Your task to perform on an android device: visit the assistant section in the google photos Image 0: 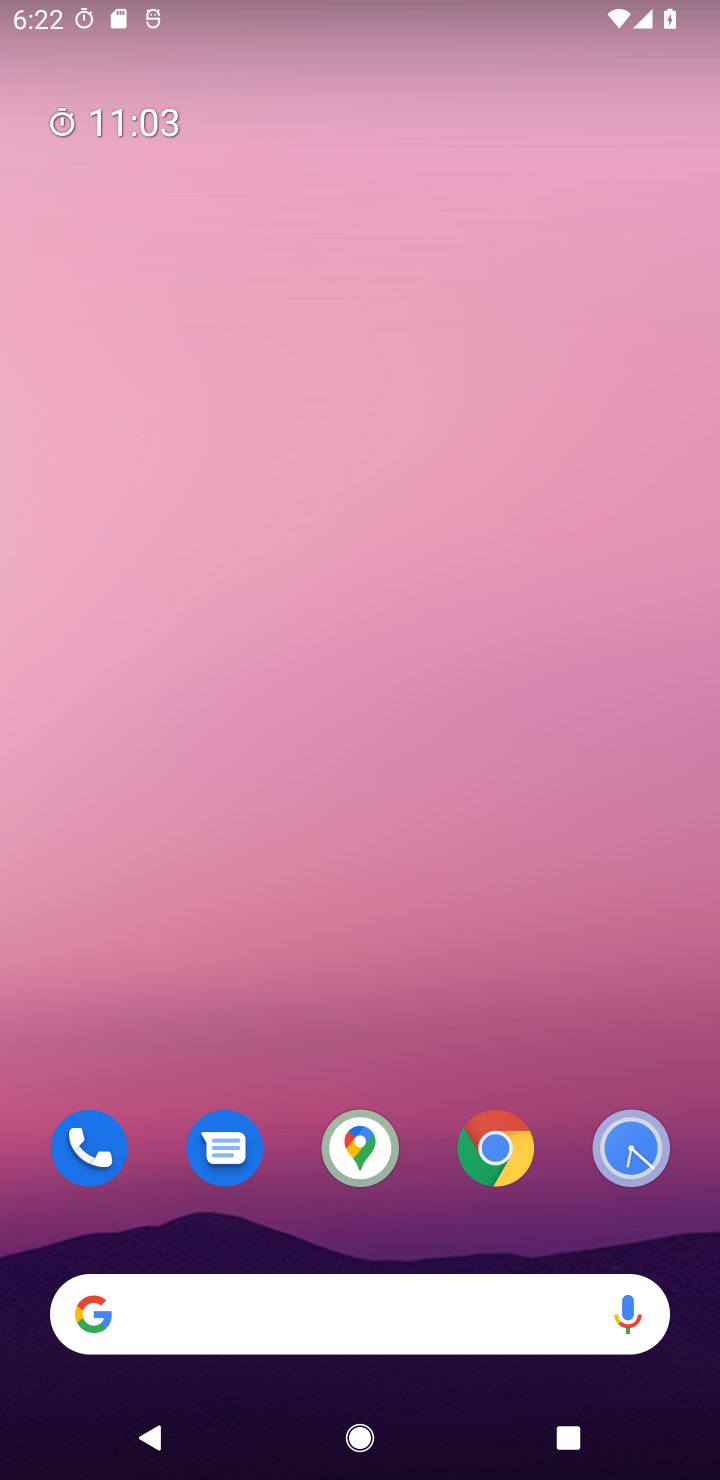
Step 0: drag from (294, 1179) to (312, 823)
Your task to perform on an android device: visit the assistant section in the google photos Image 1: 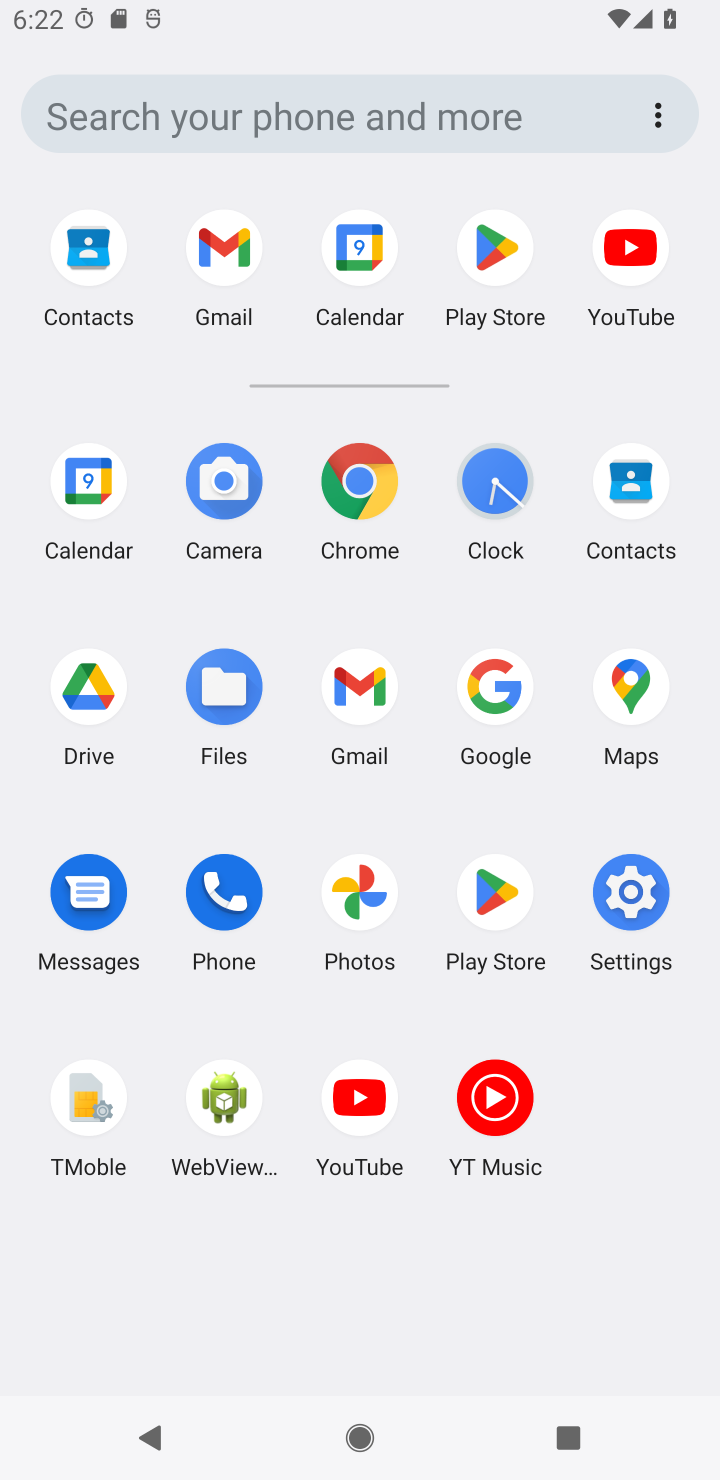
Step 1: click (363, 914)
Your task to perform on an android device: visit the assistant section in the google photos Image 2: 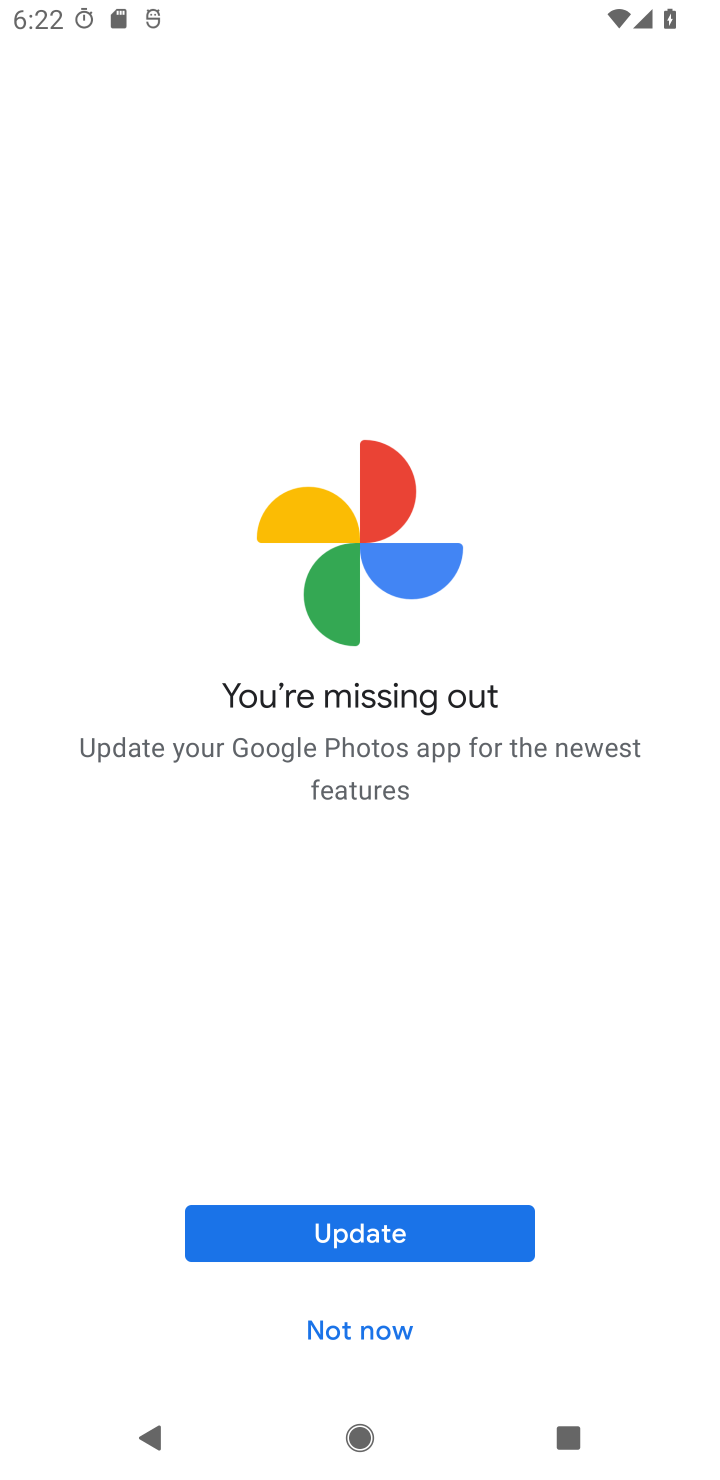
Step 2: click (370, 1326)
Your task to perform on an android device: visit the assistant section in the google photos Image 3: 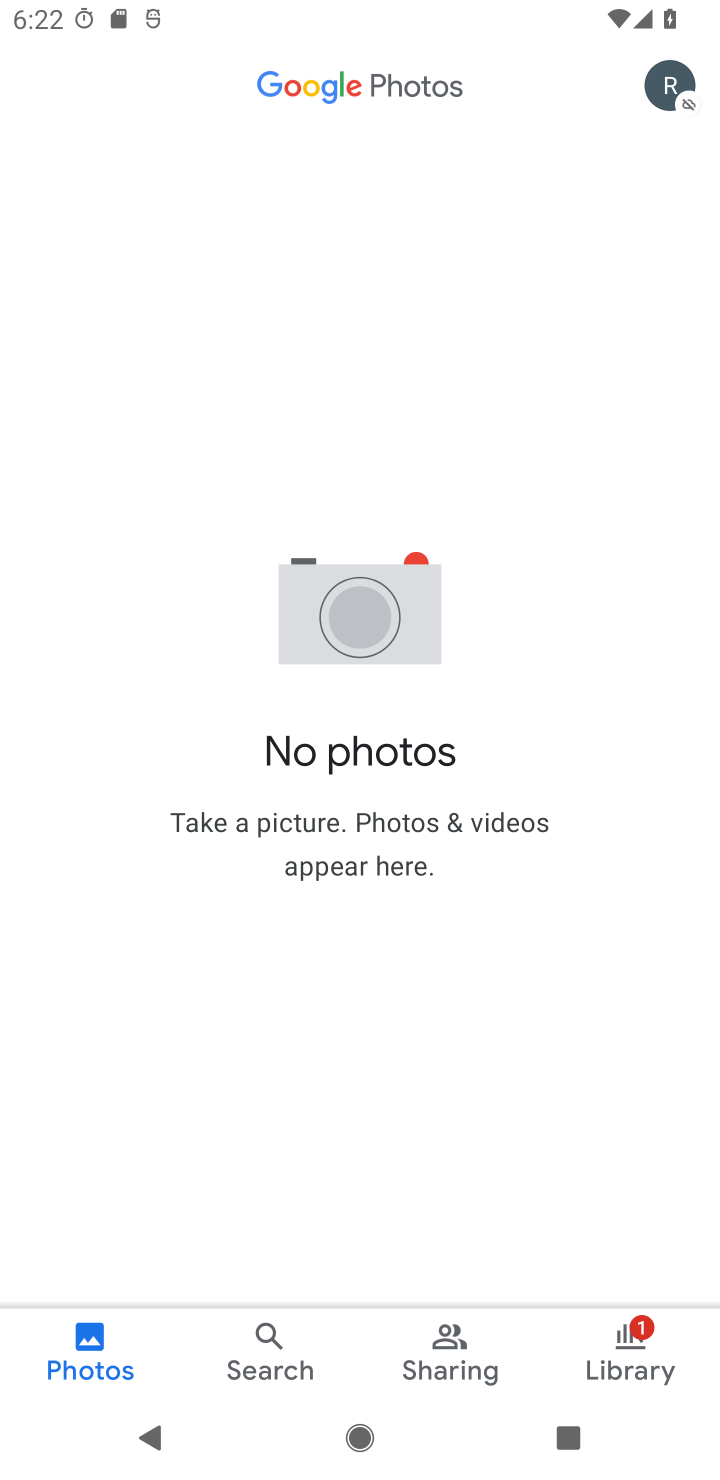
Step 3: click (652, 1315)
Your task to perform on an android device: visit the assistant section in the google photos Image 4: 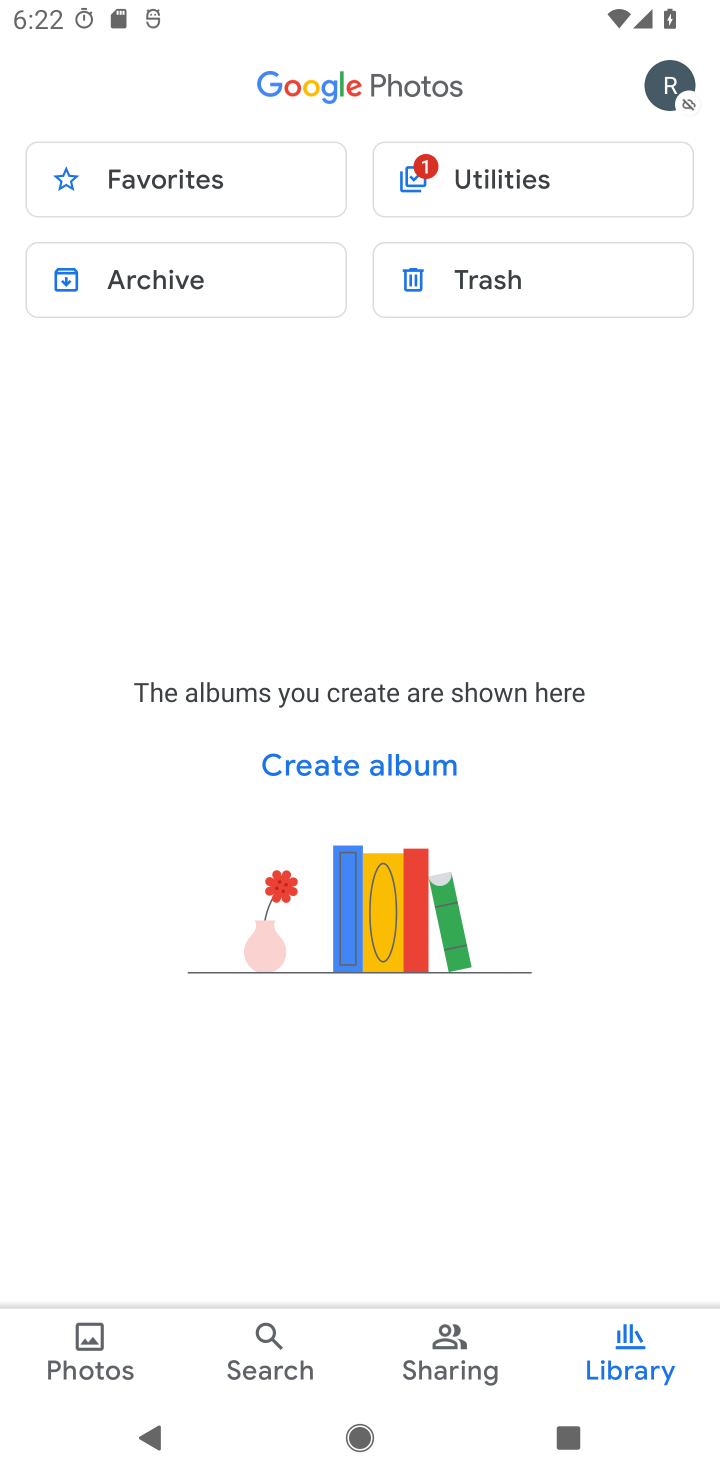
Step 4: click (467, 1364)
Your task to perform on an android device: visit the assistant section in the google photos Image 5: 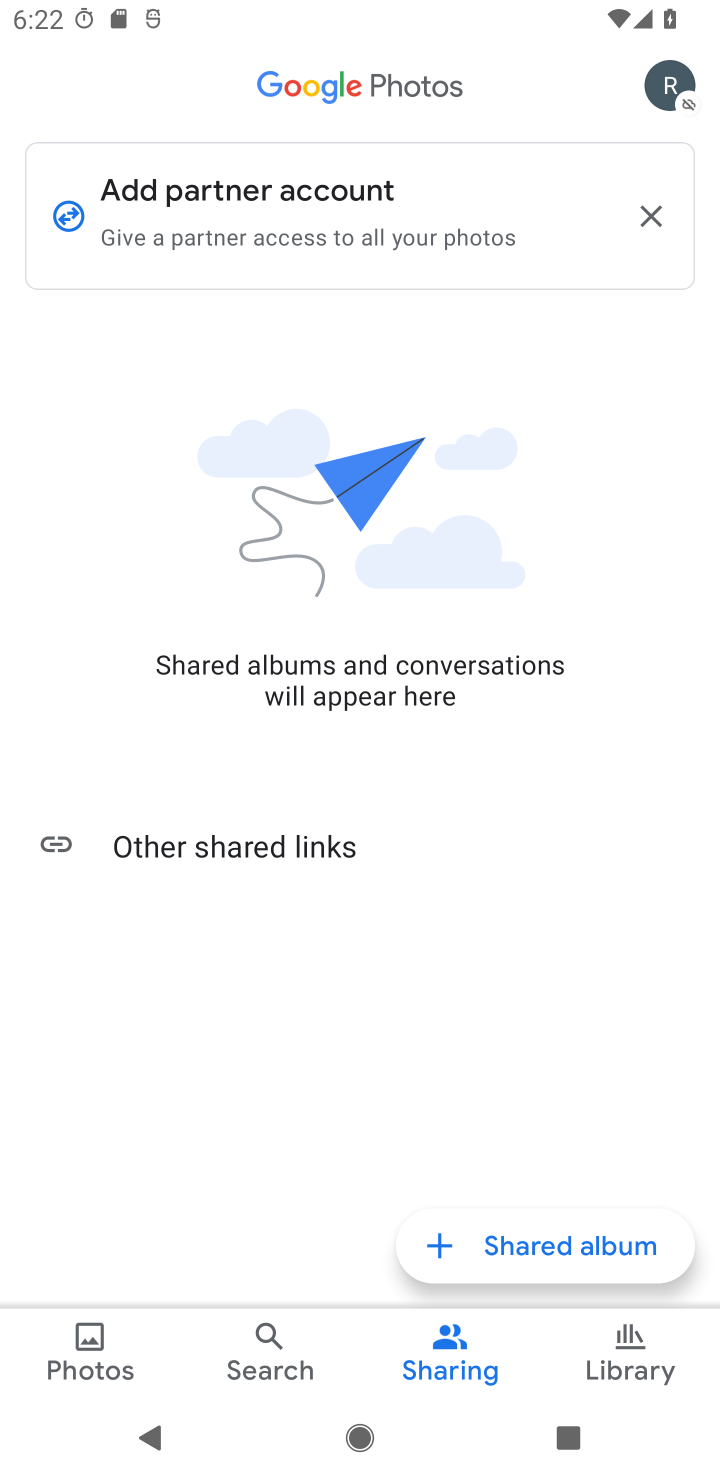
Step 5: task complete